Your task to perform on an android device: Open internet settings Image 0: 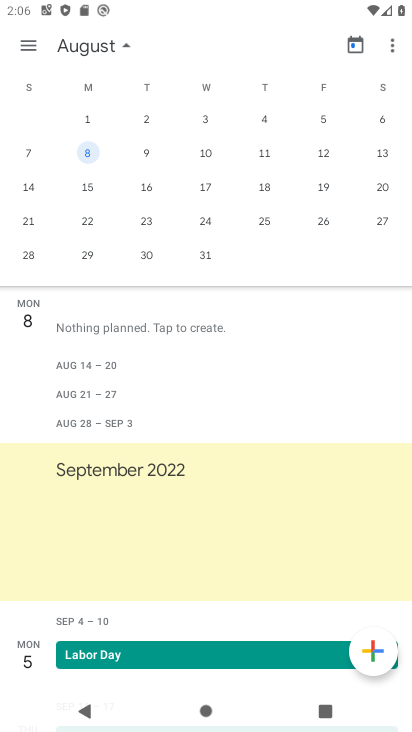
Step 0: press back button
Your task to perform on an android device: Open internet settings Image 1: 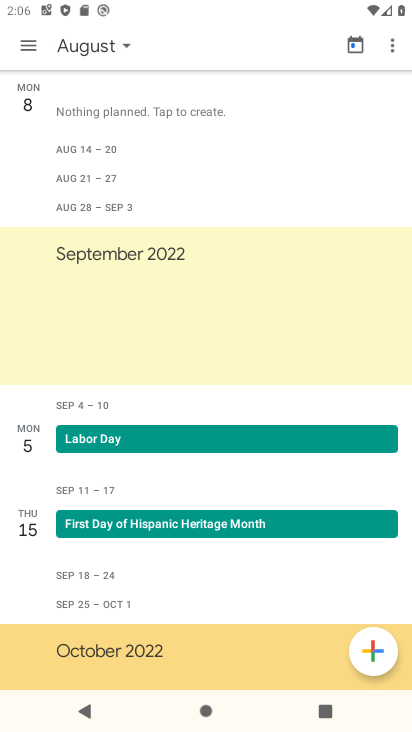
Step 1: press back button
Your task to perform on an android device: Open internet settings Image 2: 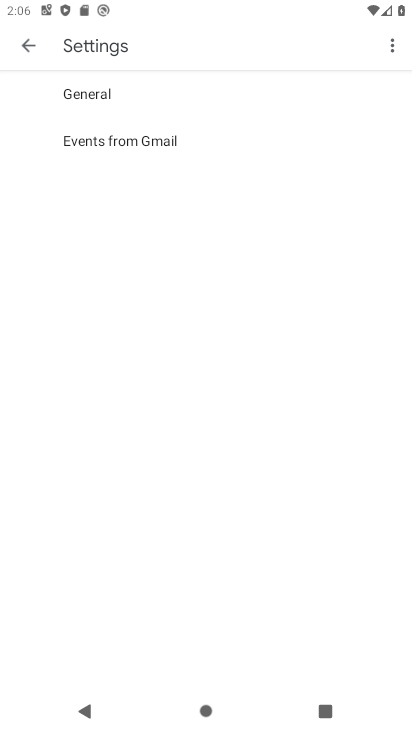
Step 2: press back button
Your task to perform on an android device: Open internet settings Image 3: 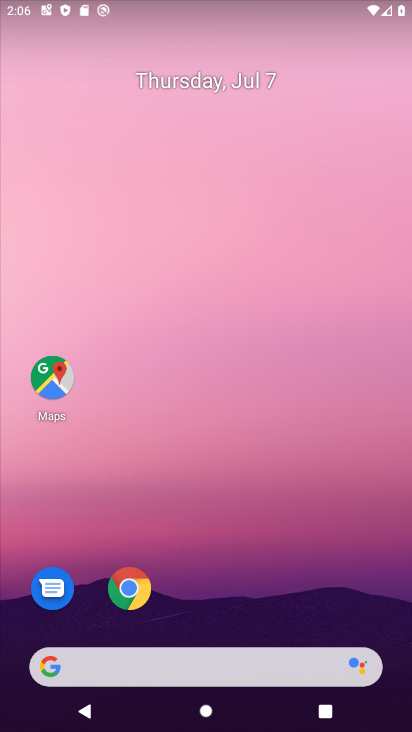
Step 3: drag from (211, 630) to (209, 15)
Your task to perform on an android device: Open internet settings Image 4: 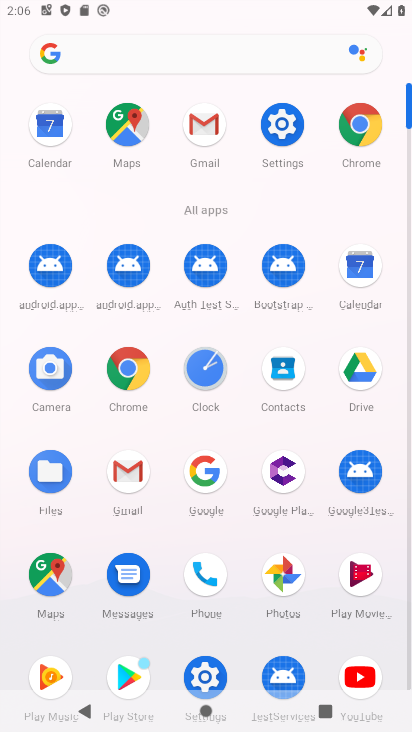
Step 4: click (287, 124)
Your task to perform on an android device: Open internet settings Image 5: 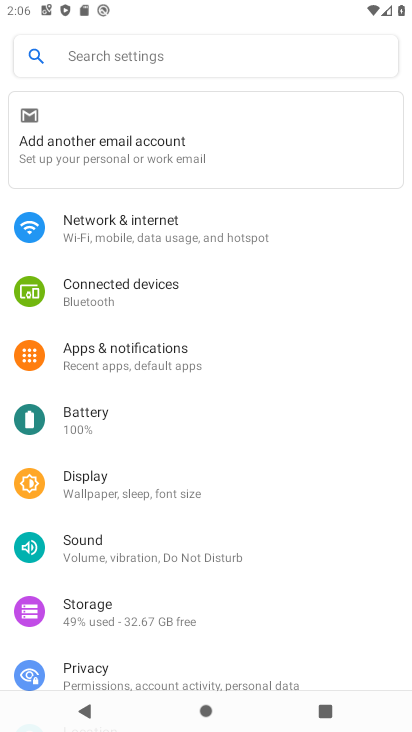
Step 5: click (169, 222)
Your task to perform on an android device: Open internet settings Image 6: 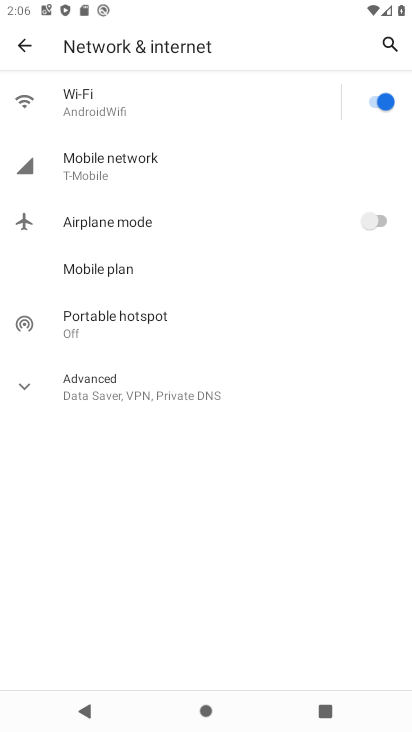
Step 6: task complete